Your task to perform on an android device: Open privacy settings Image 0: 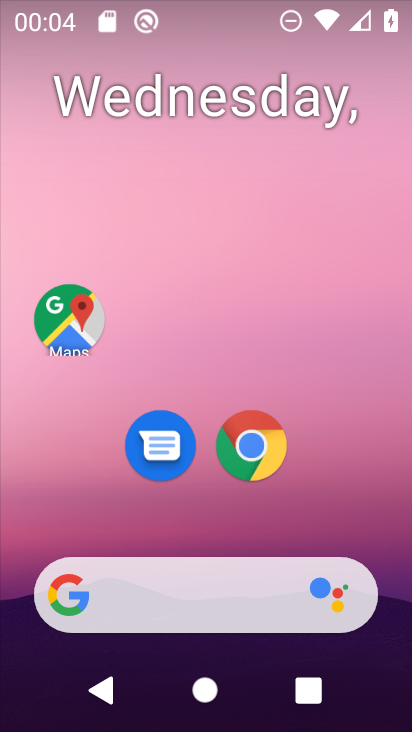
Step 0: drag from (225, 522) to (276, 34)
Your task to perform on an android device: Open privacy settings Image 1: 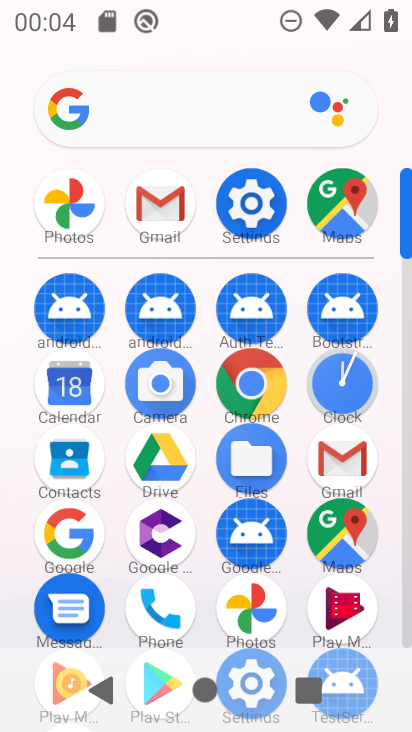
Step 1: click (233, 205)
Your task to perform on an android device: Open privacy settings Image 2: 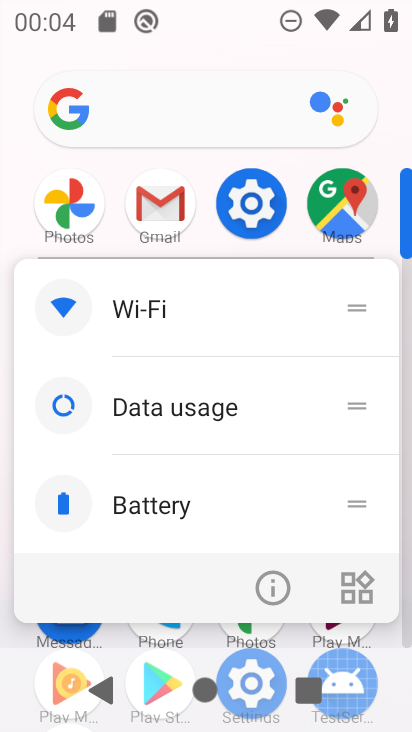
Step 2: click (244, 212)
Your task to perform on an android device: Open privacy settings Image 3: 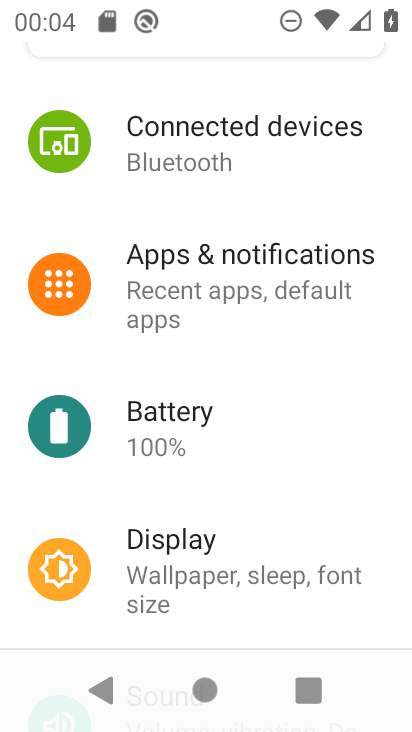
Step 3: drag from (147, 585) to (180, 277)
Your task to perform on an android device: Open privacy settings Image 4: 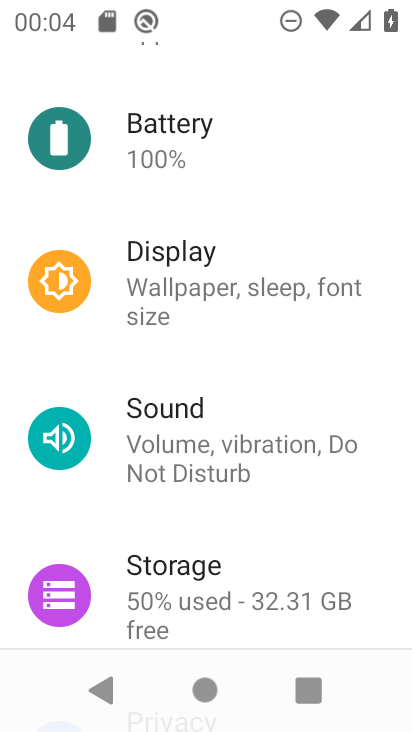
Step 4: drag from (202, 494) to (200, 219)
Your task to perform on an android device: Open privacy settings Image 5: 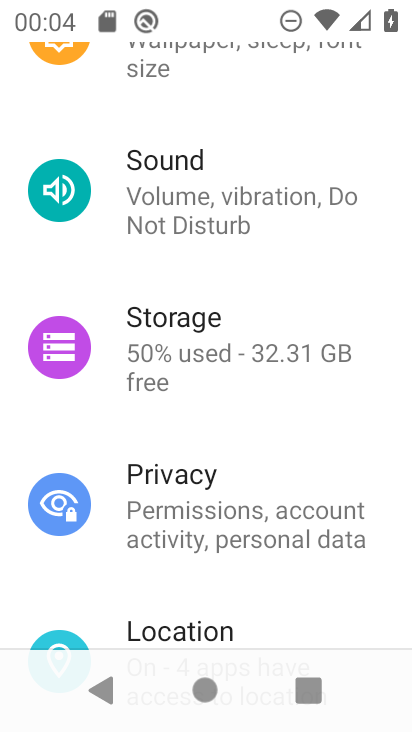
Step 5: click (283, 536)
Your task to perform on an android device: Open privacy settings Image 6: 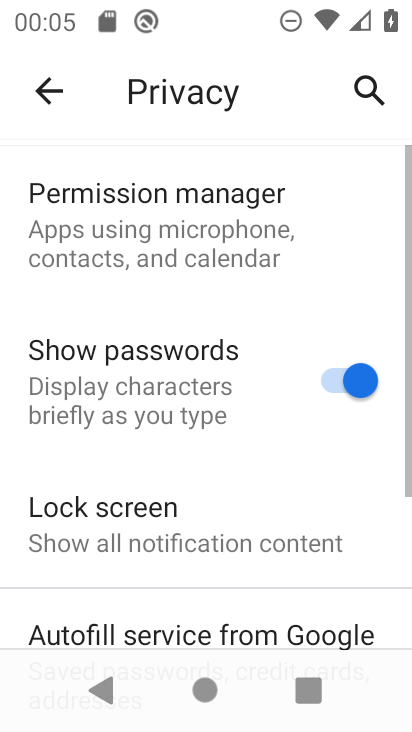
Step 6: task complete